Your task to perform on an android device: What is the recent news? Image 0: 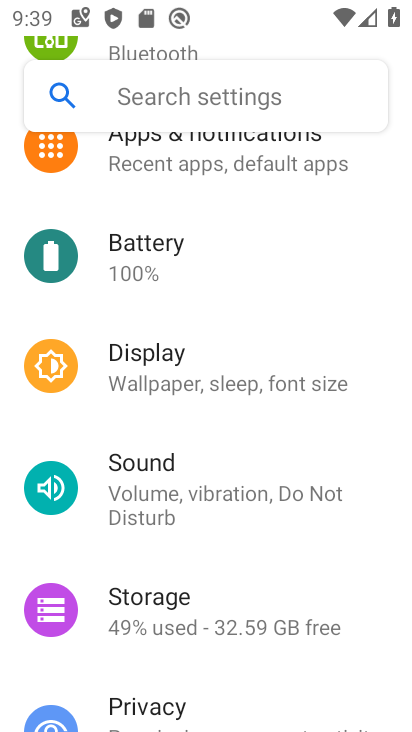
Step 0: press home button
Your task to perform on an android device: What is the recent news? Image 1: 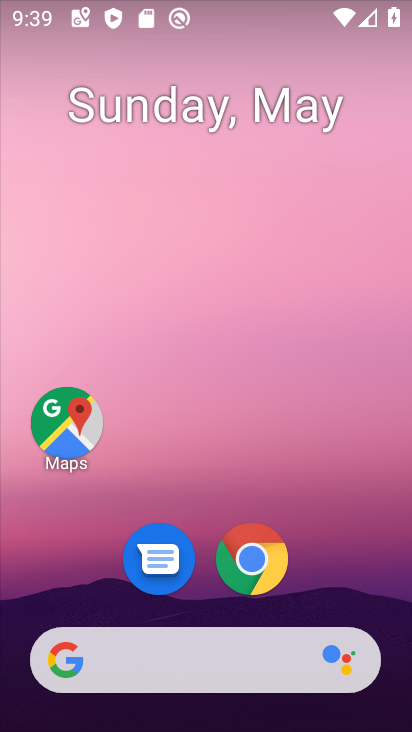
Step 1: click (168, 648)
Your task to perform on an android device: What is the recent news? Image 2: 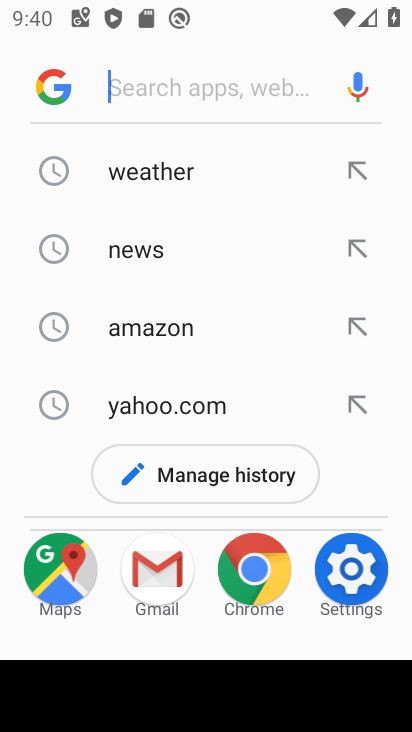
Step 2: type " recent news"
Your task to perform on an android device: What is the recent news? Image 3: 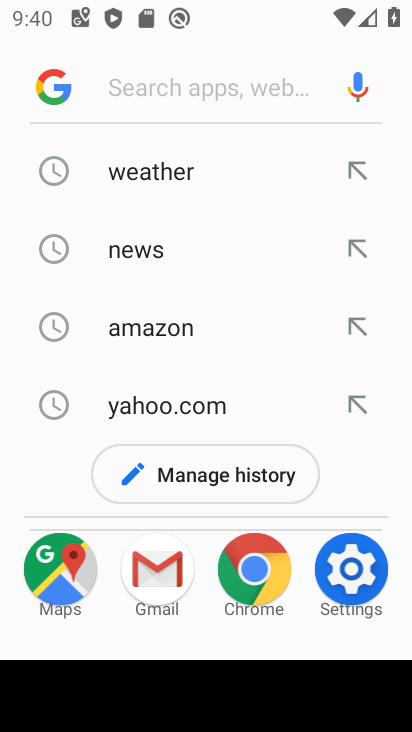
Step 3: click (249, 86)
Your task to perform on an android device: What is the recent news? Image 4: 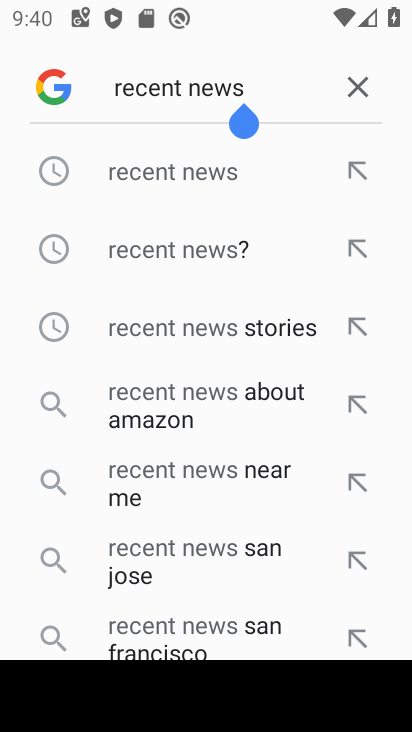
Step 4: click (171, 184)
Your task to perform on an android device: What is the recent news? Image 5: 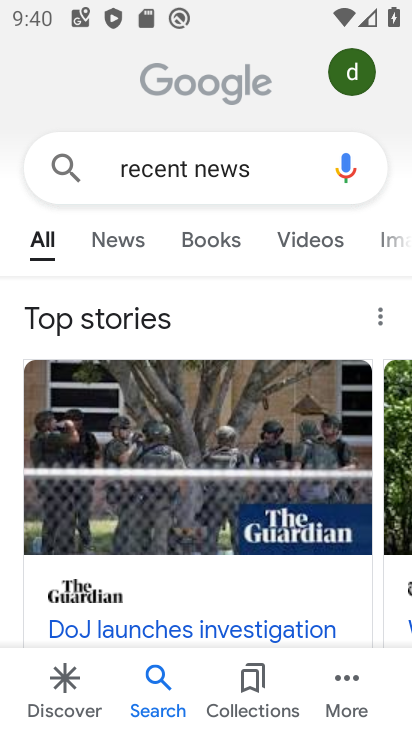
Step 5: task complete